Your task to perform on an android device: change the clock style Image 0: 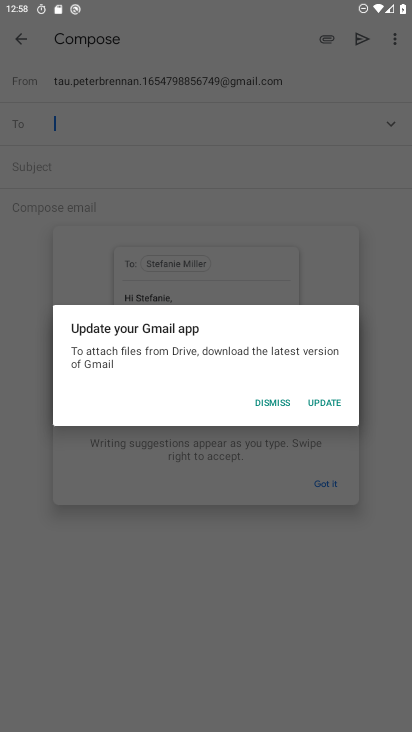
Step 0: press home button
Your task to perform on an android device: change the clock style Image 1: 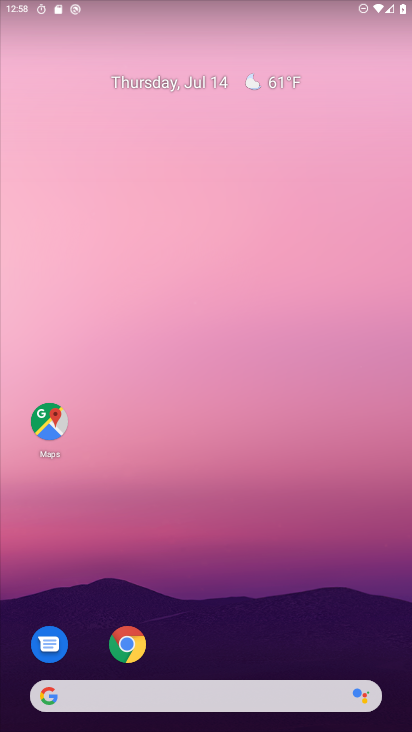
Step 1: drag from (208, 662) to (249, 2)
Your task to perform on an android device: change the clock style Image 2: 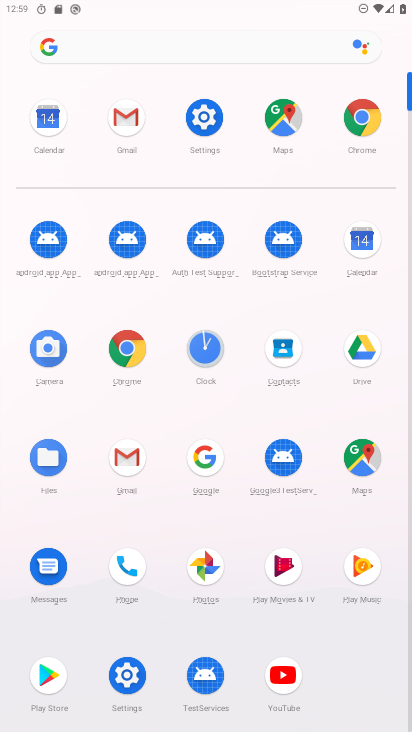
Step 2: click (212, 350)
Your task to perform on an android device: change the clock style Image 3: 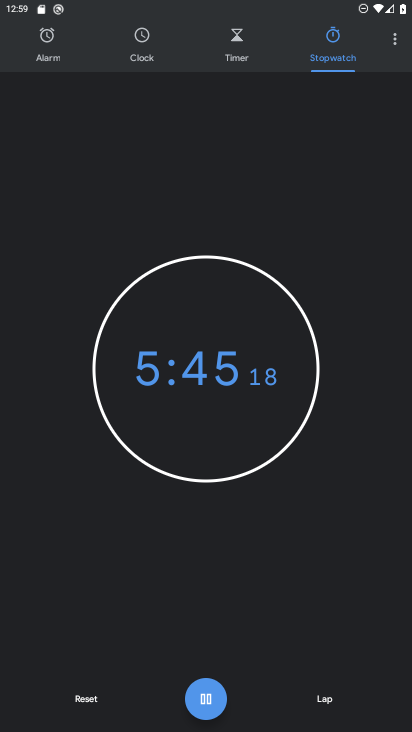
Step 3: click (385, 34)
Your task to perform on an android device: change the clock style Image 4: 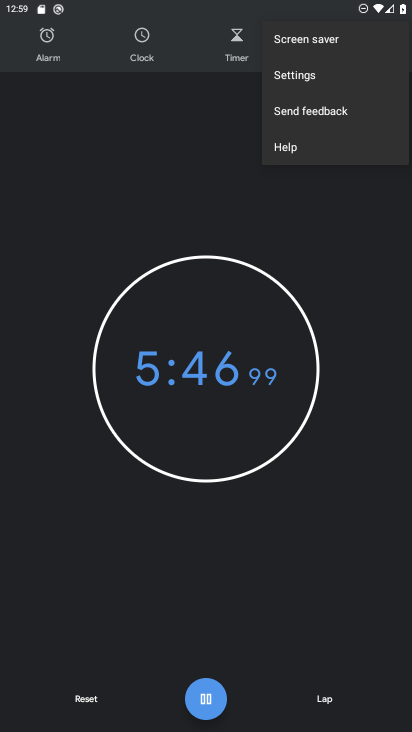
Step 4: click (297, 83)
Your task to perform on an android device: change the clock style Image 5: 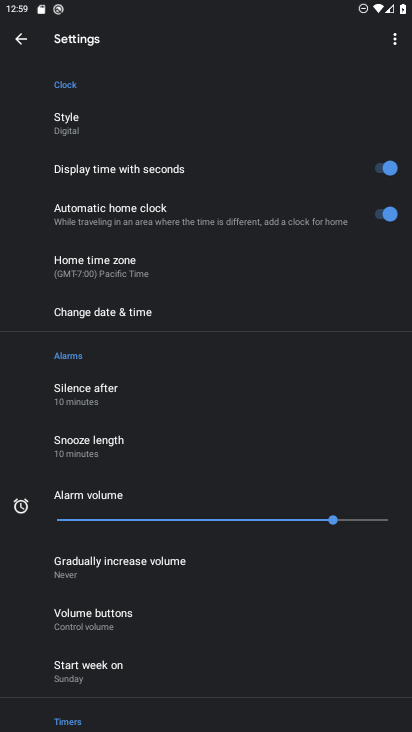
Step 5: click (78, 114)
Your task to perform on an android device: change the clock style Image 6: 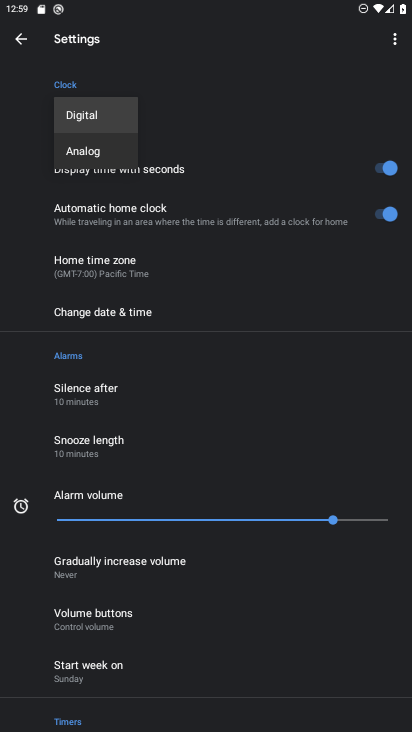
Step 6: click (72, 159)
Your task to perform on an android device: change the clock style Image 7: 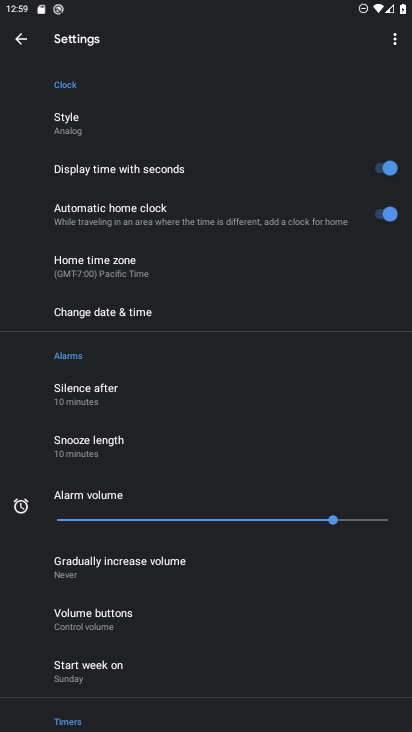
Step 7: task complete